Your task to perform on an android device: What is the news today? Image 0: 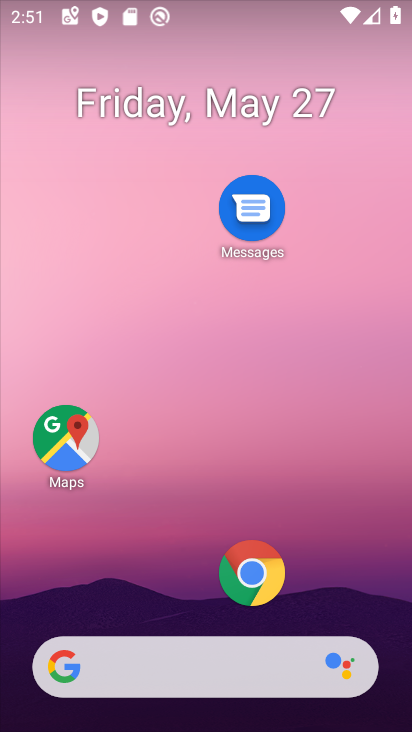
Step 0: drag from (212, 601) to (169, 129)
Your task to perform on an android device: What is the news today? Image 1: 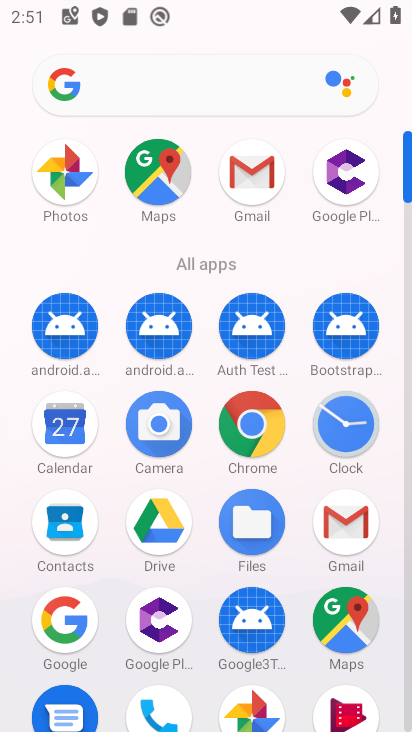
Step 1: click (85, 624)
Your task to perform on an android device: What is the news today? Image 2: 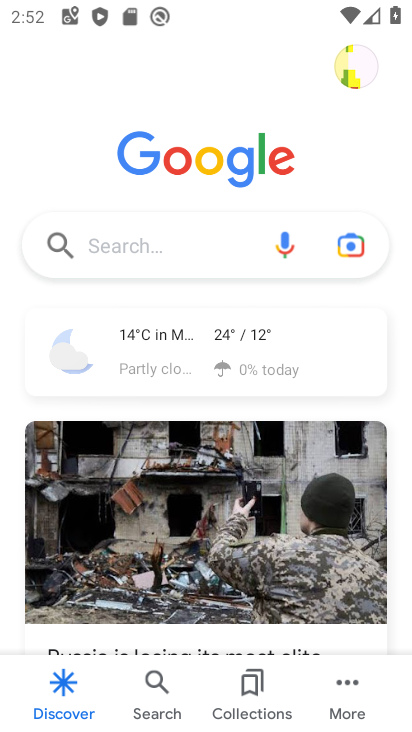
Step 2: task complete